Your task to perform on an android device: toggle wifi Image 0: 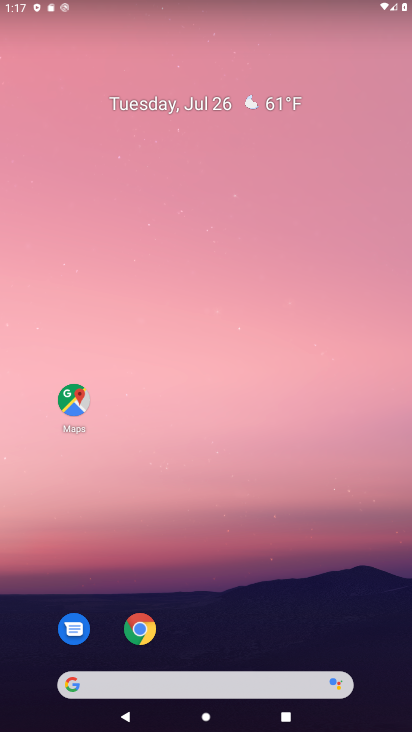
Step 0: drag from (131, 16) to (152, 683)
Your task to perform on an android device: toggle wifi Image 1: 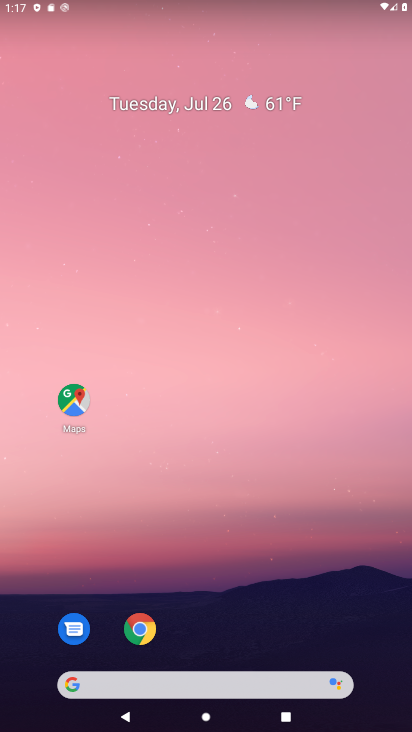
Step 1: drag from (157, 4) to (232, 644)
Your task to perform on an android device: toggle wifi Image 2: 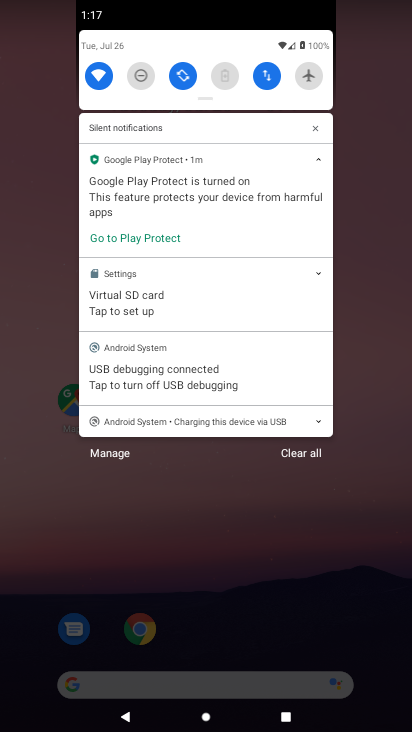
Step 2: click (99, 81)
Your task to perform on an android device: toggle wifi Image 3: 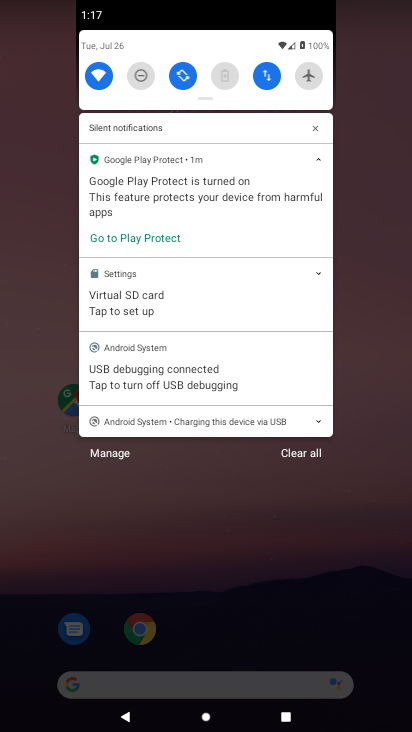
Step 3: click (99, 81)
Your task to perform on an android device: toggle wifi Image 4: 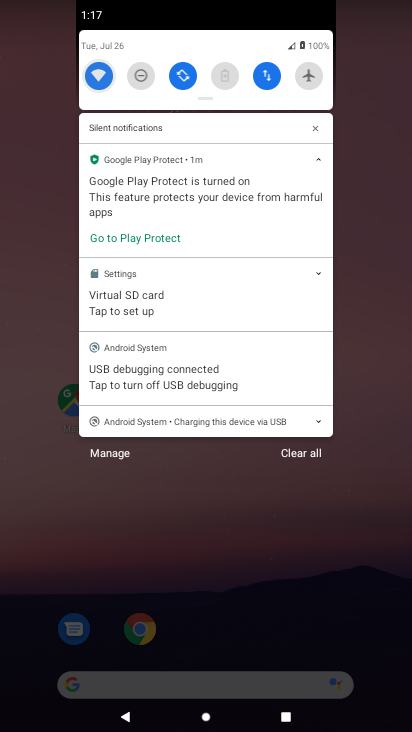
Step 4: click (99, 81)
Your task to perform on an android device: toggle wifi Image 5: 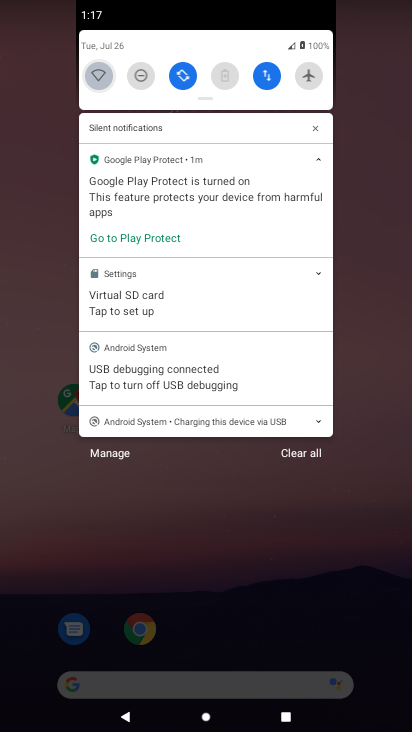
Step 5: click (99, 81)
Your task to perform on an android device: toggle wifi Image 6: 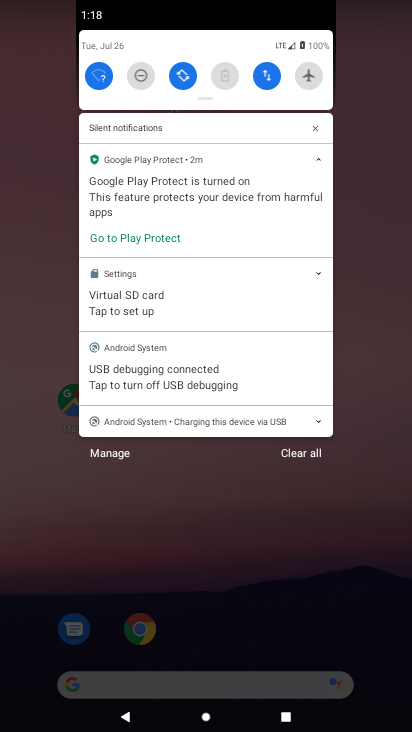
Step 6: task complete